Your task to perform on an android device: stop showing notifications on the lock screen Image 0: 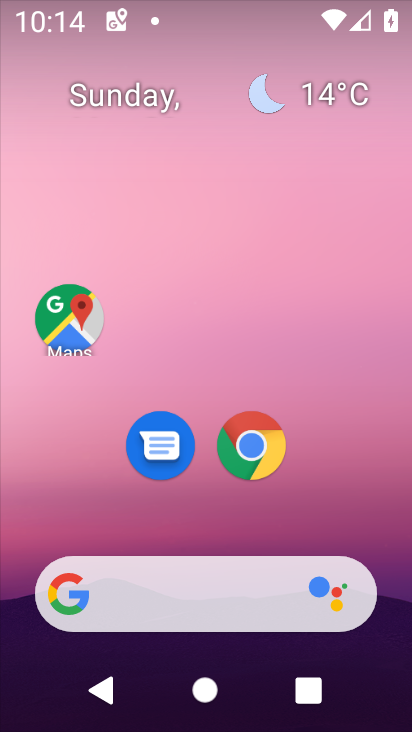
Step 0: drag from (221, 481) to (226, 70)
Your task to perform on an android device: stop showing notifications on the lock screen Image 1: 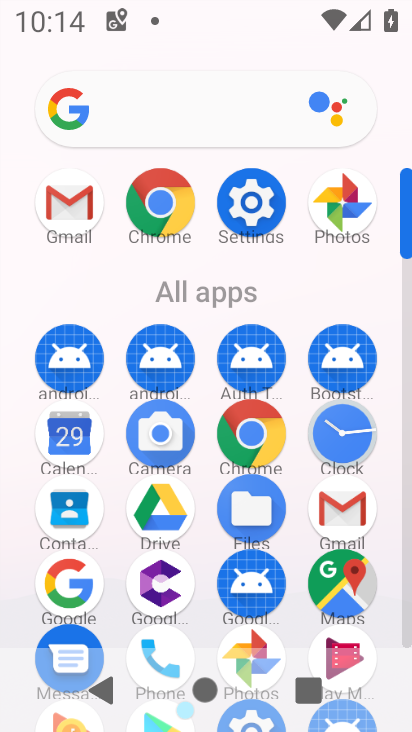
Step 1: click (254, 202)
Your task to perform on an android device: stop showing notifications on the lock screen Image 2: 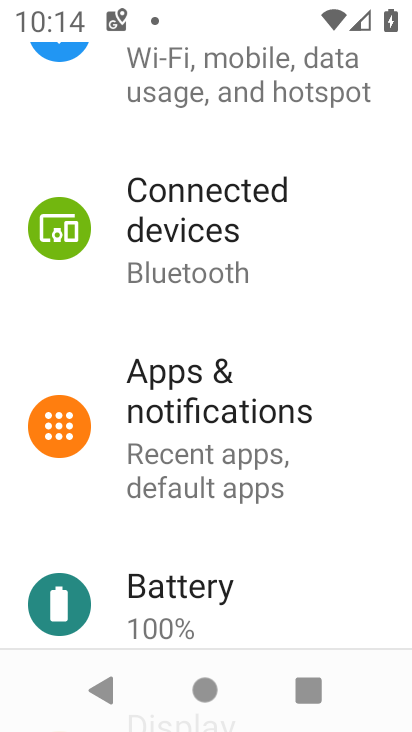
Step 2: click (232, 438)
Your task to perform on an android device: stop showing notifications on the lock screen Image 3: 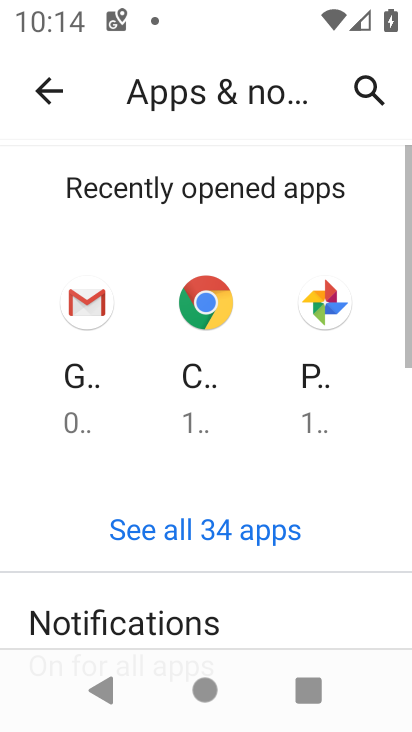
Step 3: click (175, 601)
Your task to perform on an android device: stop showing notifications on the lock screen Image 4: 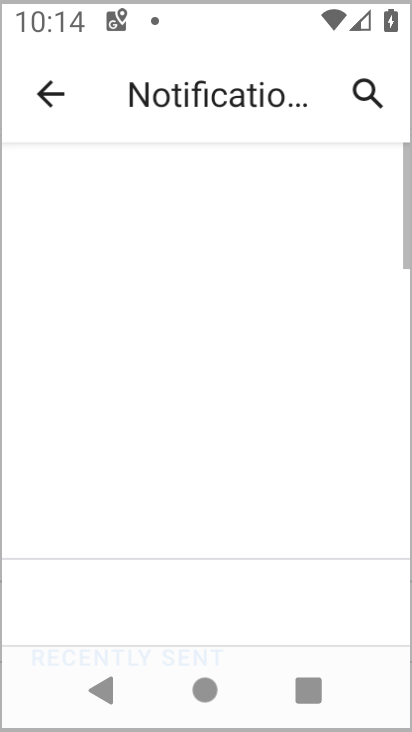
Step 4: drag from (198, 576) to (240, 25)
Your task to perform on an android device: stop showing notifications on the lock screen Image 5: 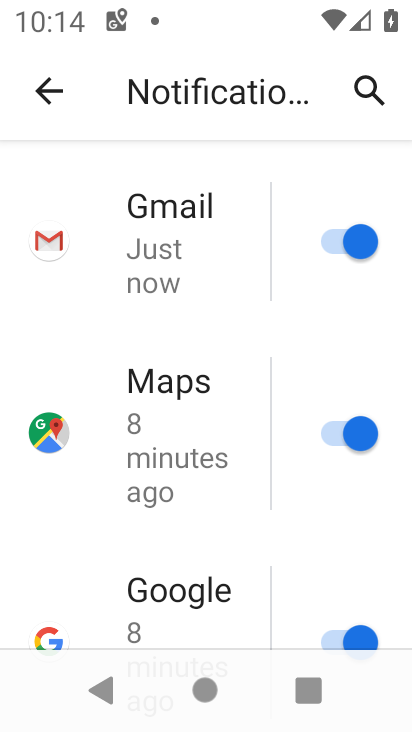
Step 5: drag from (249, 543) to (264, 127)
Your task to perform on an android device: stop showing notifications on the lock screen Image 6: 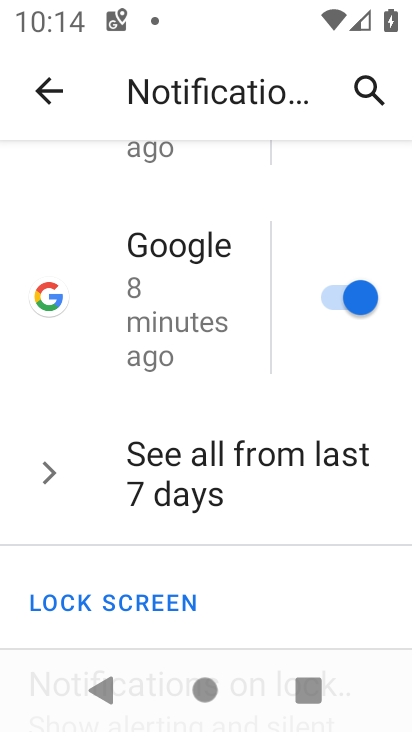
Step 6: drag from (239, 571) to (236, 100)
Your task to perform on an android device: stop showing notifications on the lock screen Image 7: 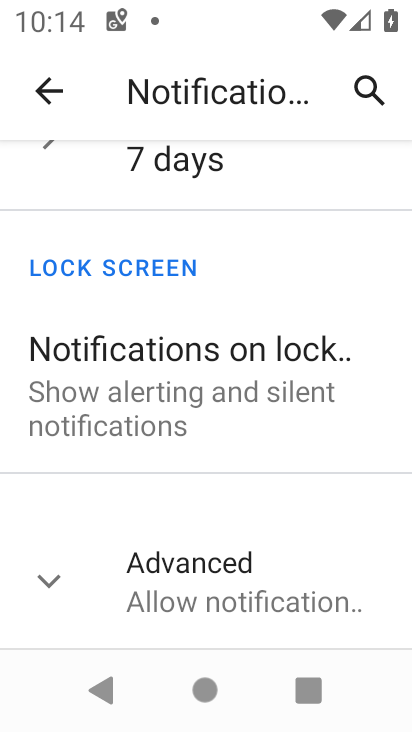
Step 7: click (232, 416)
Your task to perform on an android device: stop showing notifications on the lock screen Image 8: 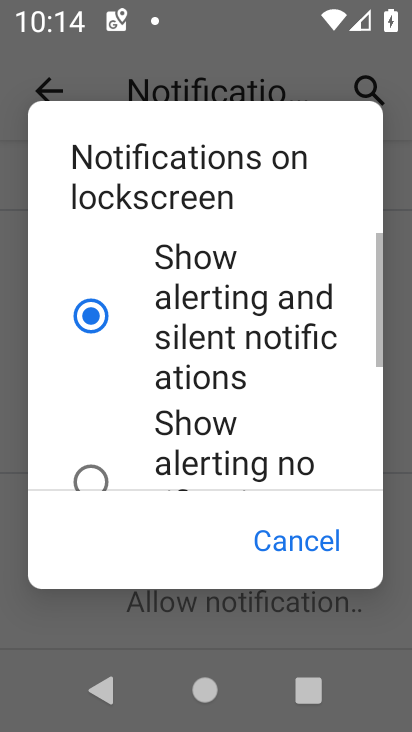
Step 8: drag from (157, 407) to (270, 9)
Your task to perform on an android device: stop showing notifications on the lock screen Image 9: 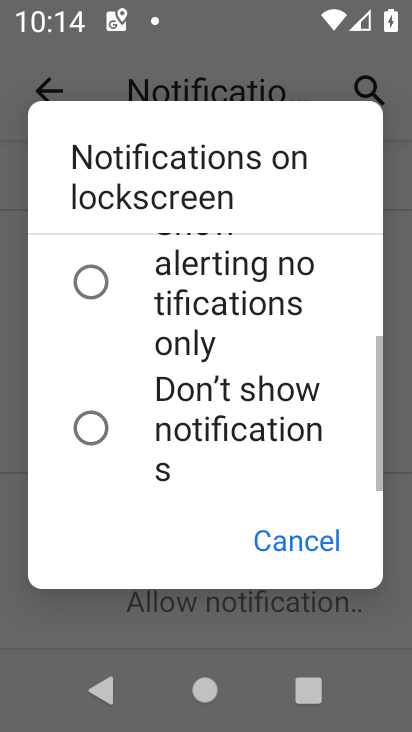
Step 9: drag from (200, 443) to (259, 54)
Your task to perform on an android device: stop showing notifications on the lock screen Image 10: 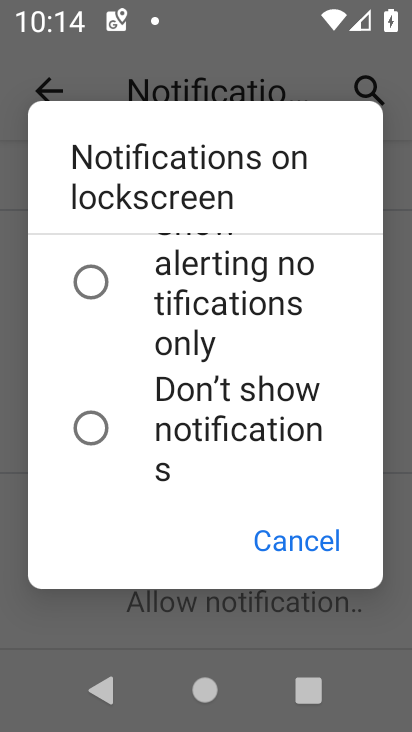
Step 10: click (218, 430)
Your task to perform on an android device: stop showing notifications on the lock screen Image 11: 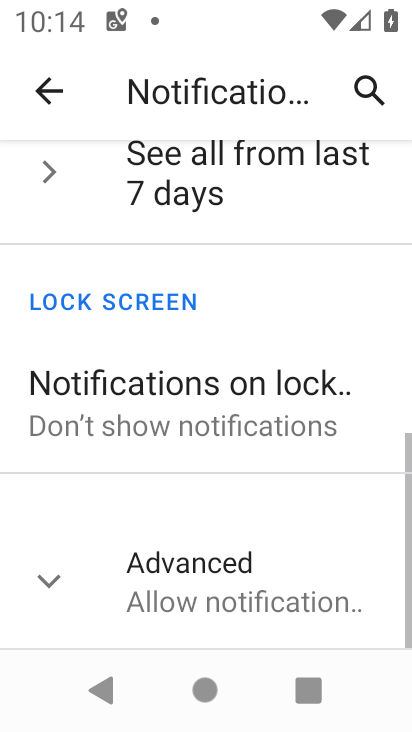
Step 11: task complete